Your task to perform on an android device: empty trash in the gmail app Image 0: 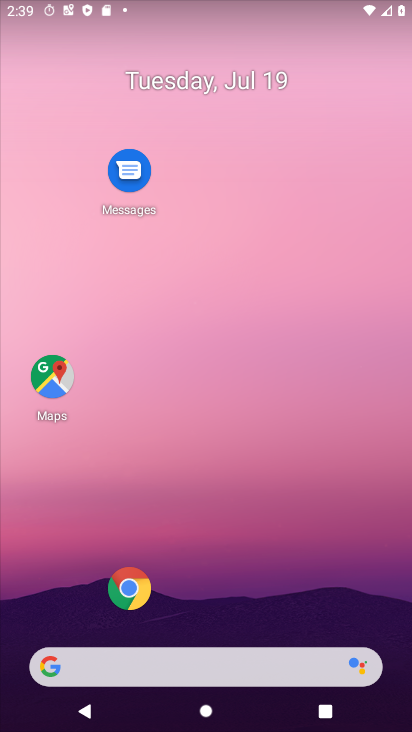
Step 0: drag from (146, 481) to (317, 99)
Your task to perform on an android device: empty trash in the gmail app Image 1: 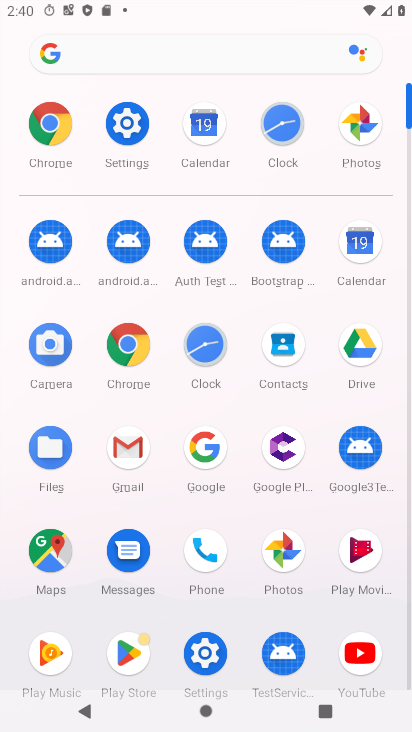
Step 1: click (104, 457)
Your task to perform on an android device: empty trash in the gmail app Image 2: 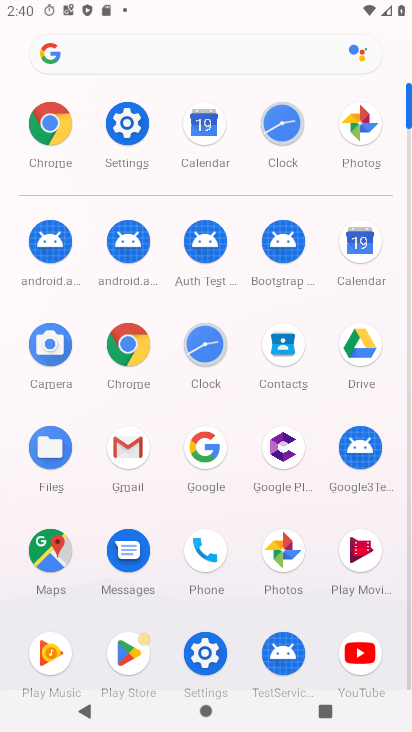
Step 2: click (133, 439)
Your task to perform on an android device: empty trash in the gmail app Image 3: 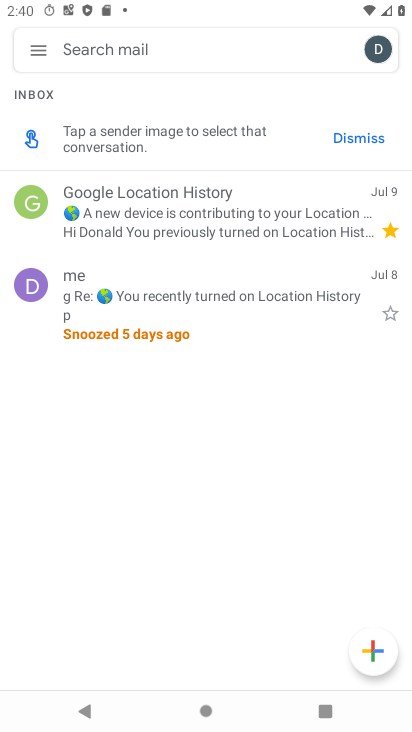
Step 3: click (42, 38)
Your task to perform on an android device: empty trash in the gmail app Image 4: 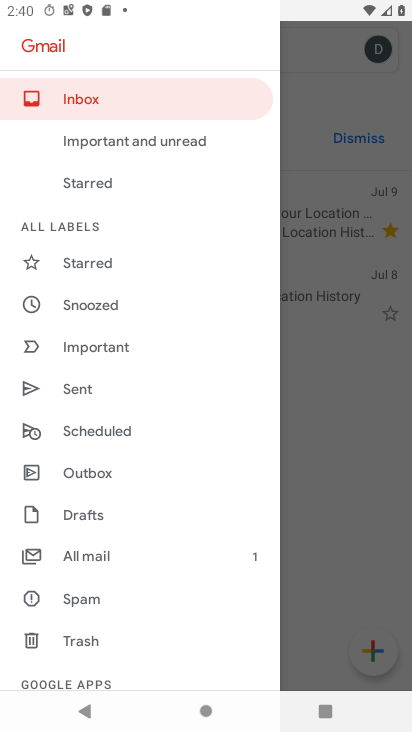
Step 4: click (97, 641)
Your task to perform on an android device: empty trash in the gmail app Image 5: 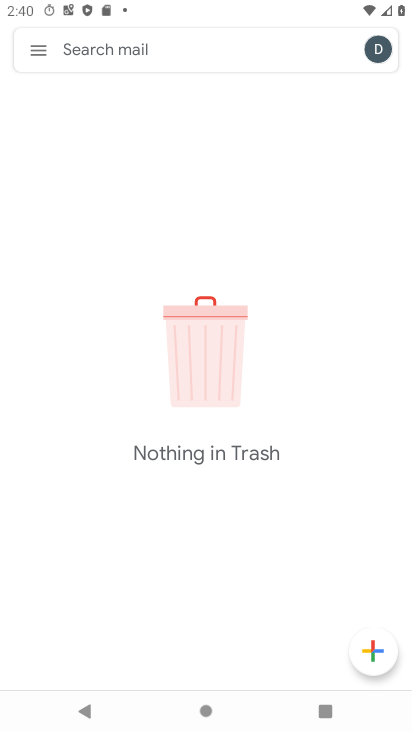
Step 5: task complete